Your task to perform on an android device: Open my contact list Image 0: 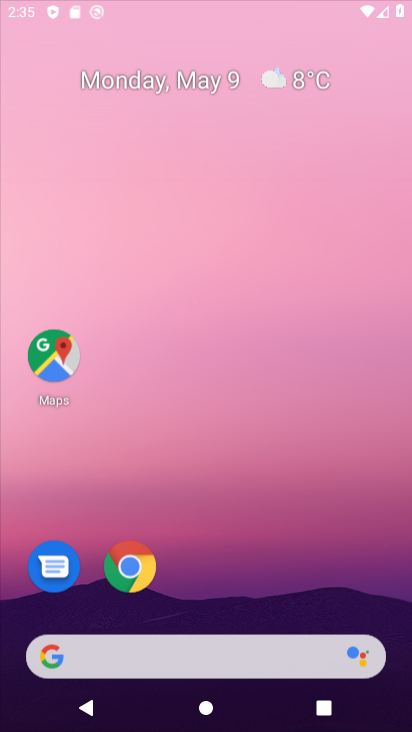
Step 0: drag from (264, 417) to (218, 105)
Your task to perform on an android device: Open my contact list Image 1: 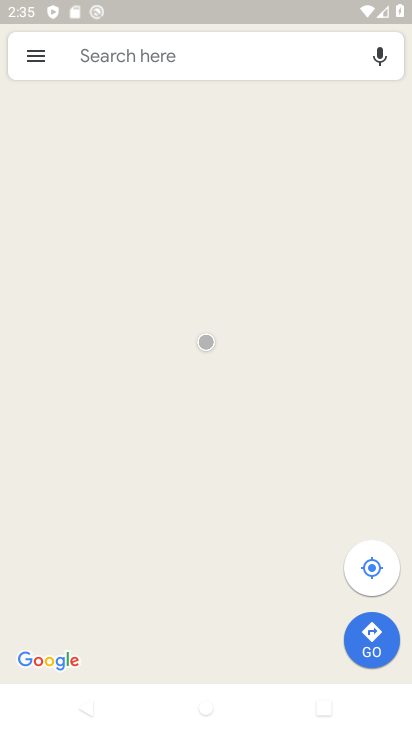
Step 1: press back button
Your task to perform on an android device: Open my contact list Image 2: 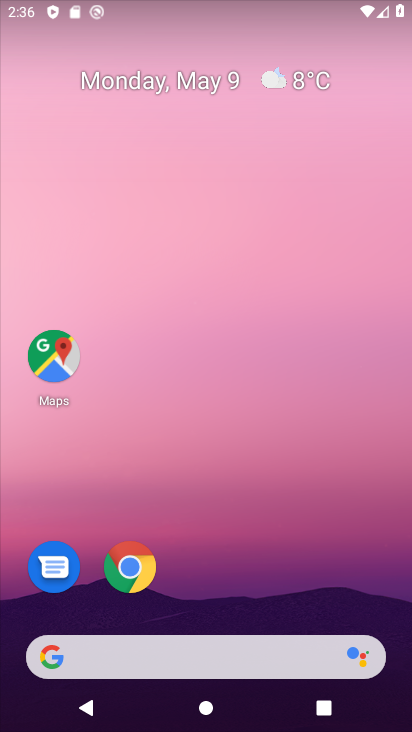
Step 2: drag from (258, 561) to (179, 4)
Your task to perform on an android device: Open my contact list Image 3: 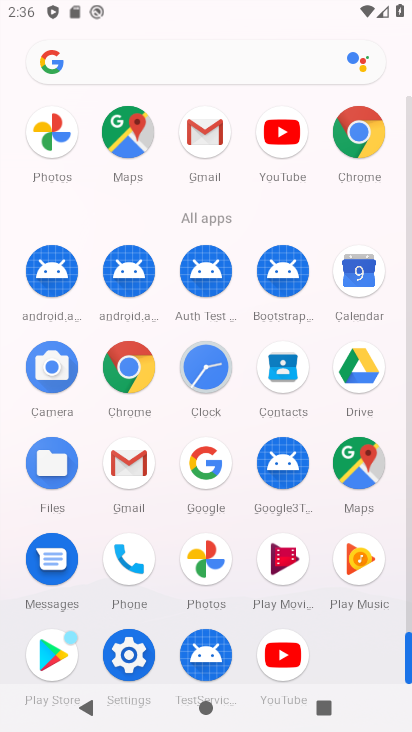
Step 3: drag from (11, 537) to (9, 271)
Your task to perform on an android device: Open my contact list Image 4: 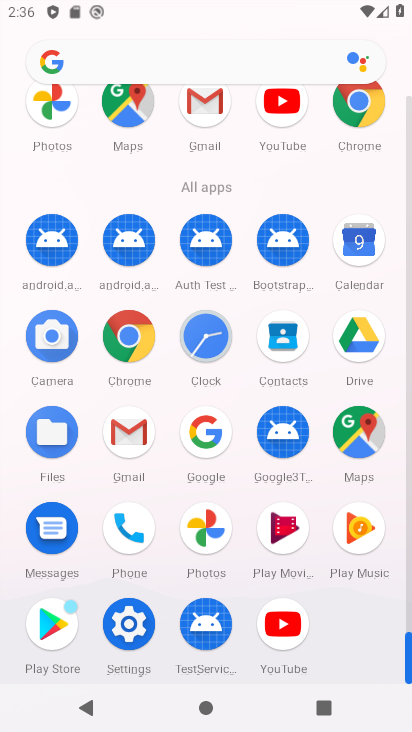
Step 4: click (279, 331)
Your task to perform on an android device: Open my contact list Image 5: 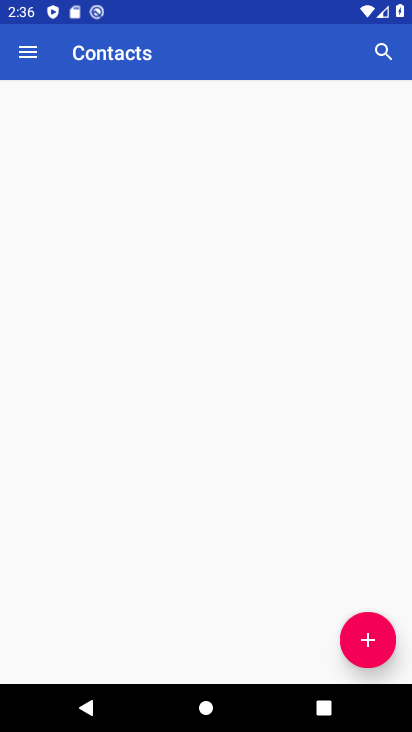
Step 5: drag from (250, 505) to (242, 53)
Your task to perform on an android device: Open my contact list Image 6: 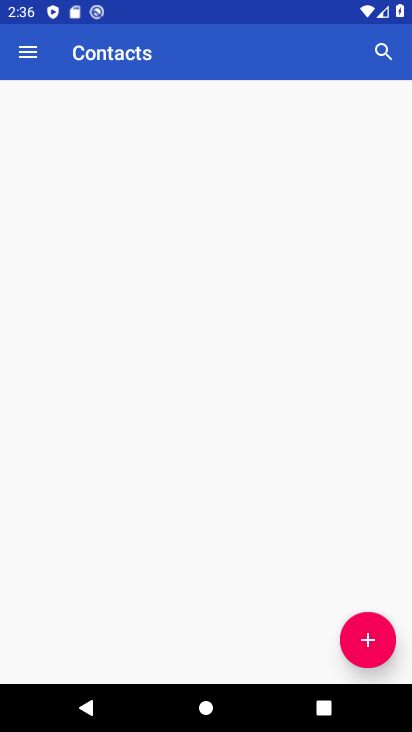
Step 6: click (22, 40)
Your task to perform on an android device: Open my contact list Image 7: 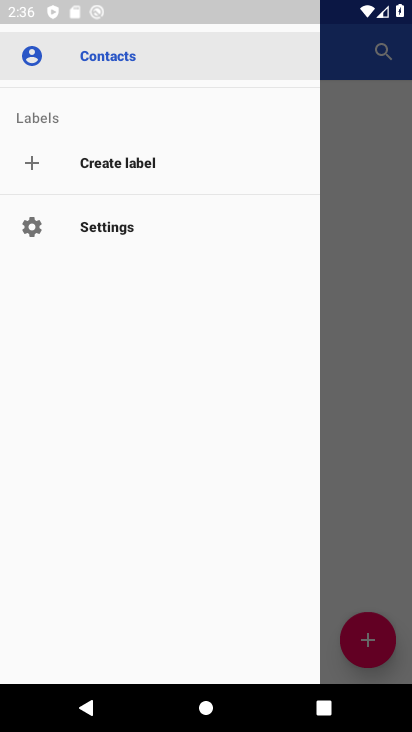
Step 7: click (202, 71)
Your task to perform on an android device: Open my contact list Image 8: 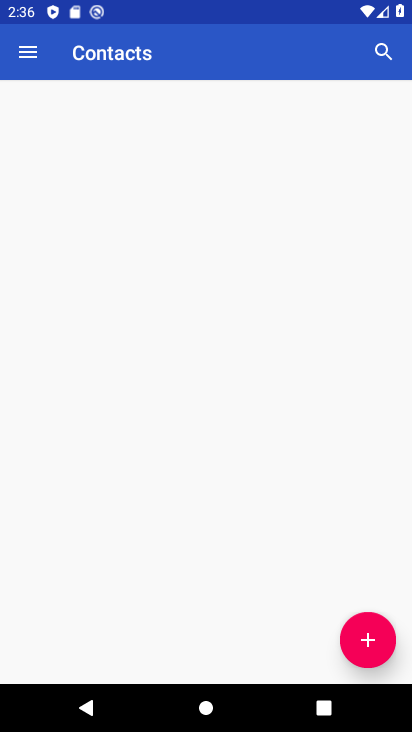
Step 8: task complete